Your task to perform on an android device: turn on data saver in the chrome app Image 0: 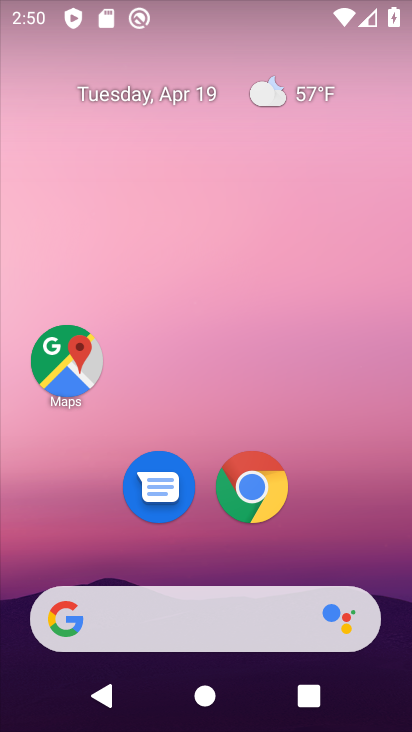
Step 0: drag from (370, 461) to (375, 147)
Your task to perform on an android device: turn on data saver in the chrome app Image 1: 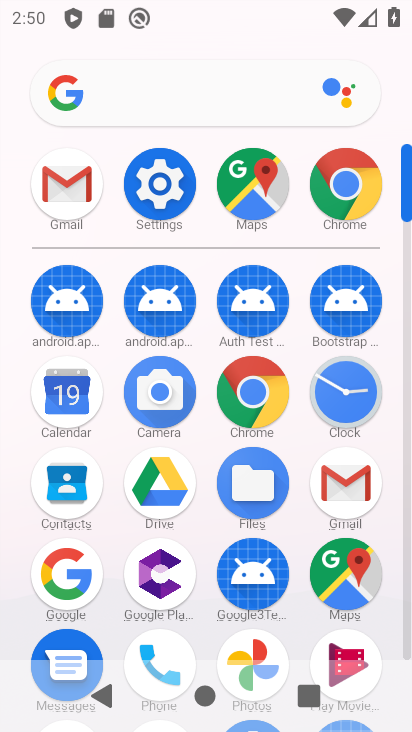
Step 1: click (342, 201)
Your task to perform on an android device: turn on data saver in the chrome app Image 2: 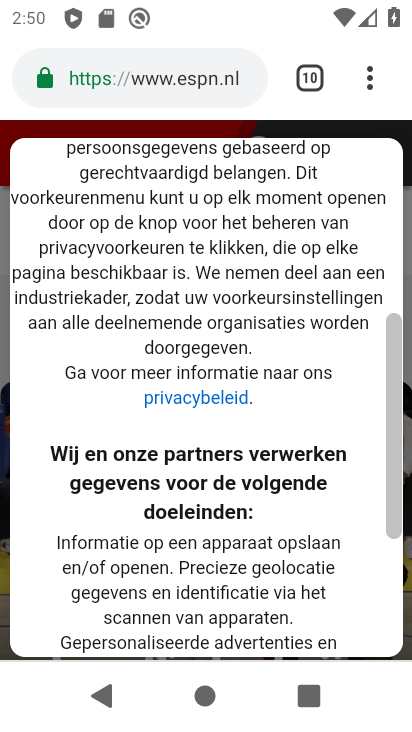
Step 2: click (373, 85)
Your task to perform on an android device: turn on data saver in the chrome app Image 3: 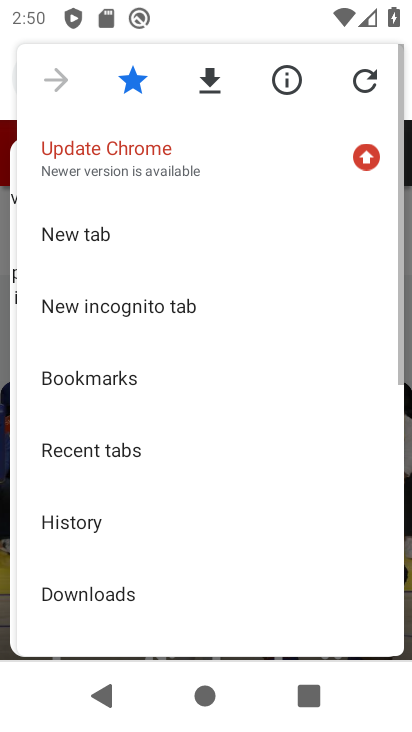
Step 3: drag from (164, 536) to (243, 295)
Your task to perform on an android device: turn on data saver in the chrome app Image 4: 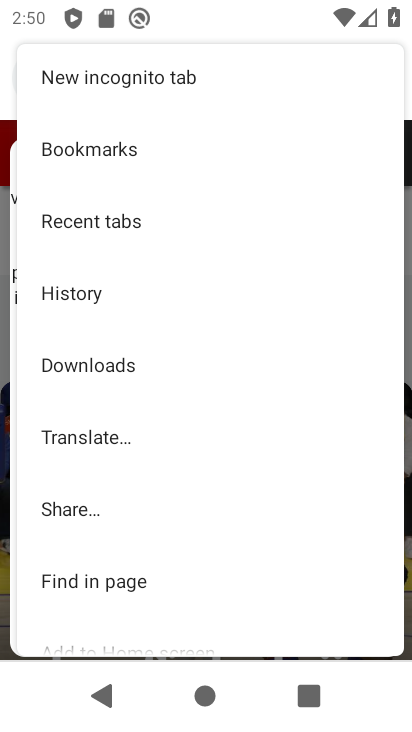
Step 4: drag from (182, 433) to (212, 201)
Your task to perform on an android device: turn on data saver in the chrome app Image 5: 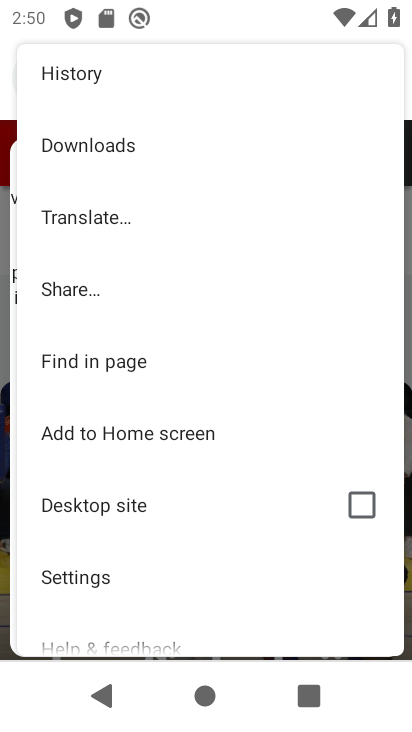
Step 5: drag from (168, 554) to (222, 263)
Your task to perform on an android device: turn on data saver in the chrome app Image 6: 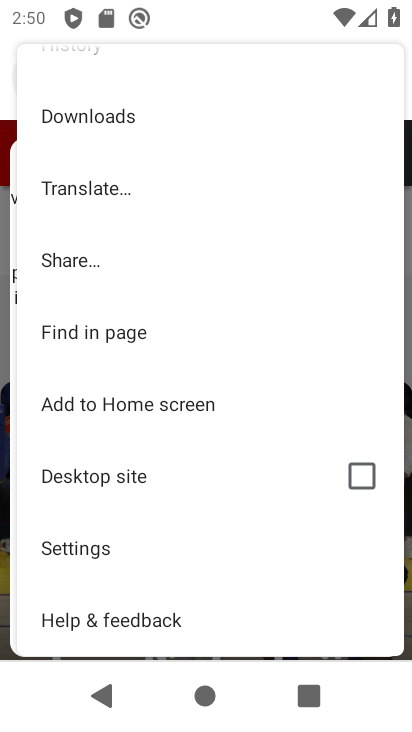
Step 6: click (91, 553)
Your task to perform on an android device: turn on data saver in the chrome app Image 7: 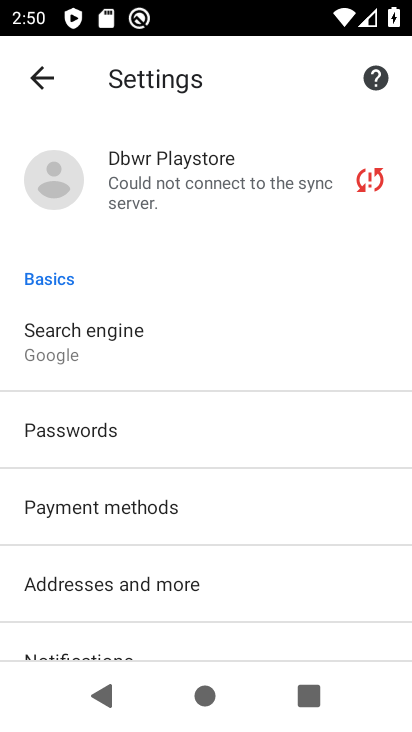
Step 7: drag from (288, 604) to (300, 342)
Your task to perform on an android device: turn on data saver in the chrome app Image 8: 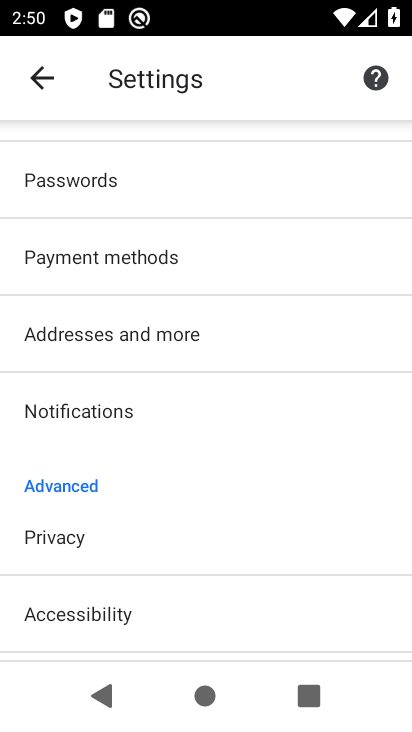
Step 8: drag from (248, 571) to (273, 275)
Your task to perform on an android device: turn on data saver in the chrome app Image 9: 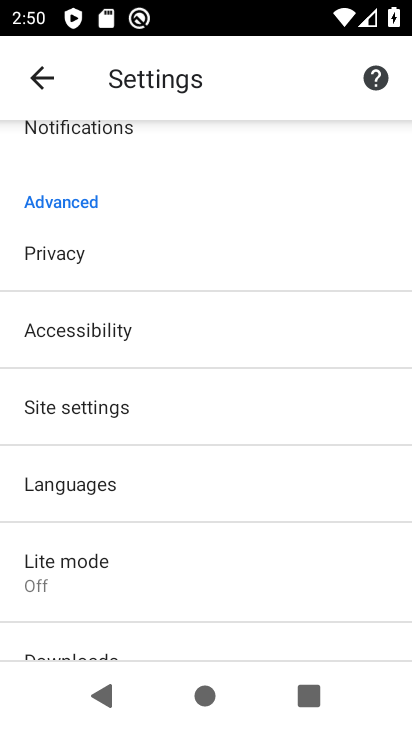
Step 9: click (107, 552)
Your task to perform on an android device: turn on data saver in the chrome app Image 10: 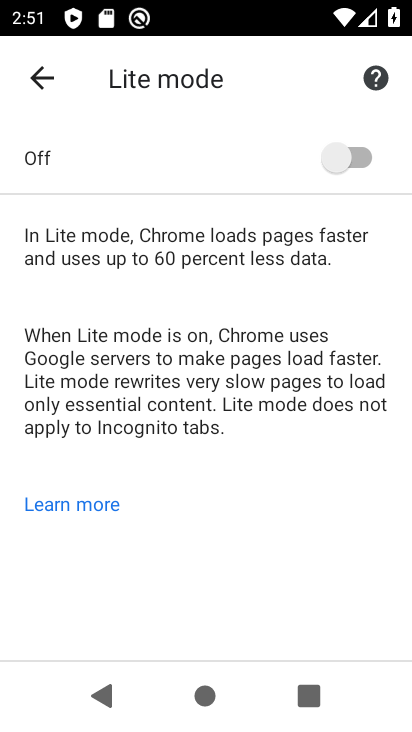
Step 10: click (359, 158)
Your task to perform on an android device: turn on data saver in the chrome app Image 11: 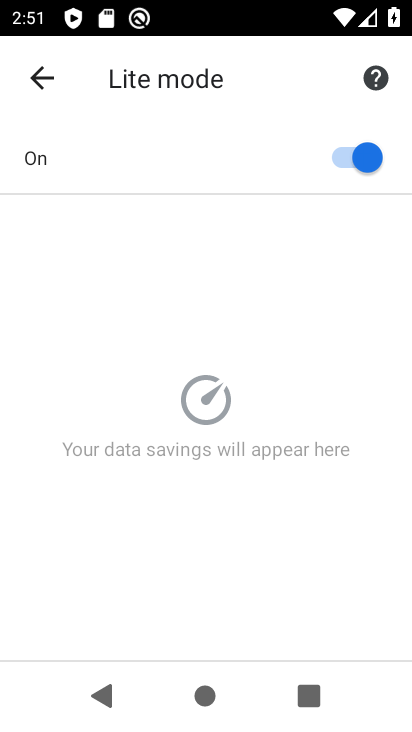
Step 11: task complete